Your task to perform on an android device: turn on notifications settings in the gmail app Image 0: 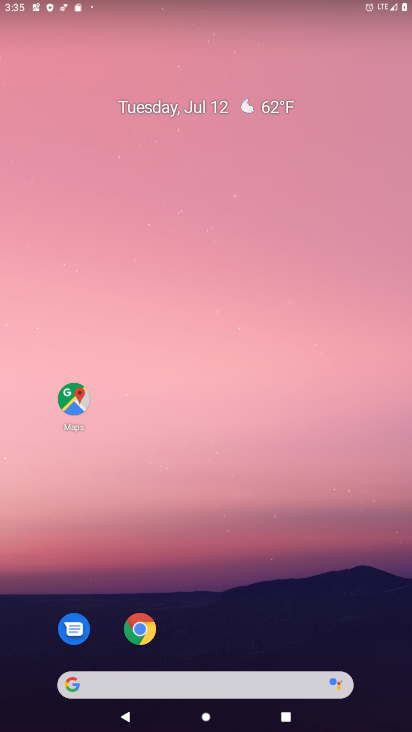
Step 0: drag from (227, 658) to (153, 28)
Your task to perform on an android device: turn on notifications settings in the gmail app Image 1: 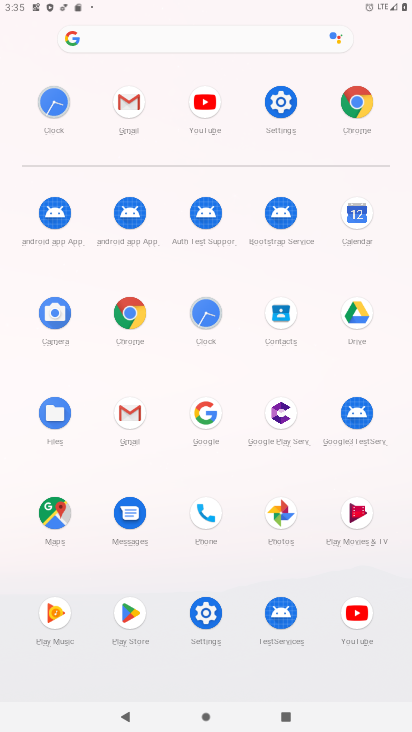
Step 1: click (141, 416)
Your task to perform on an android device: turn on notifications settings in the gmail app Image 2: 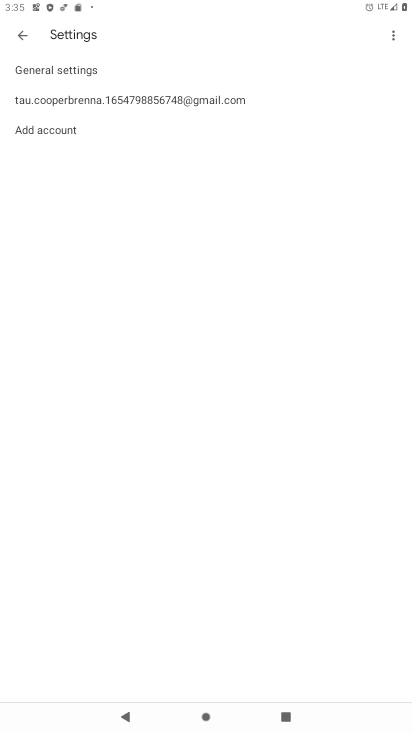
Step 2: click (34, 105)
Your task to perform on an android device: turn on notifications settings in the gmail app Image 3: 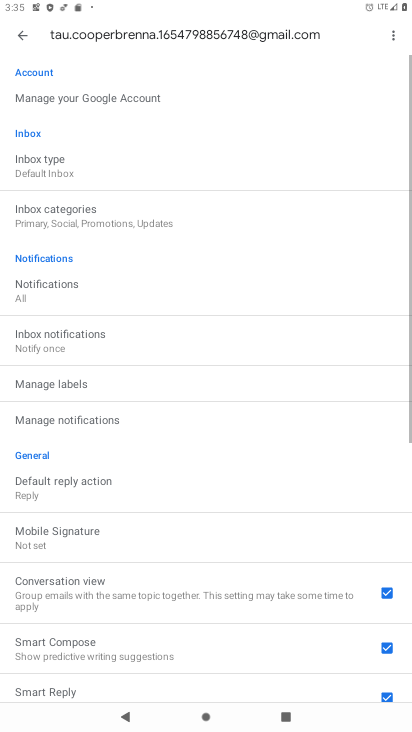
Step 3: click (18, 21)
Your task to perform on an android device: turn on notifications settings in the gmail app Image 4: 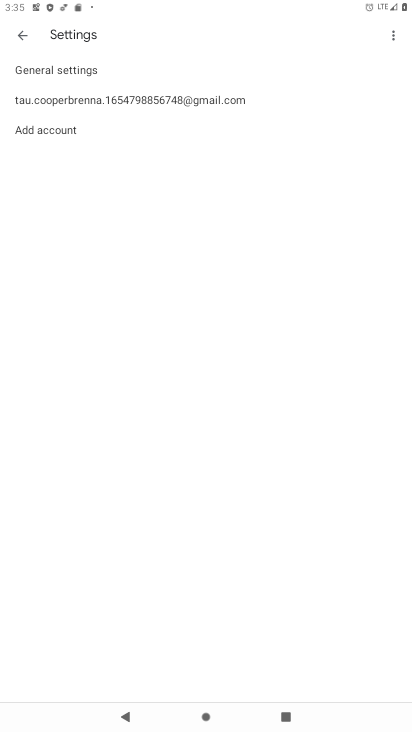
Step 4: click (81, 69)
Your task to perform on an android device: turn on notifications settings in the gmail app Image 5: 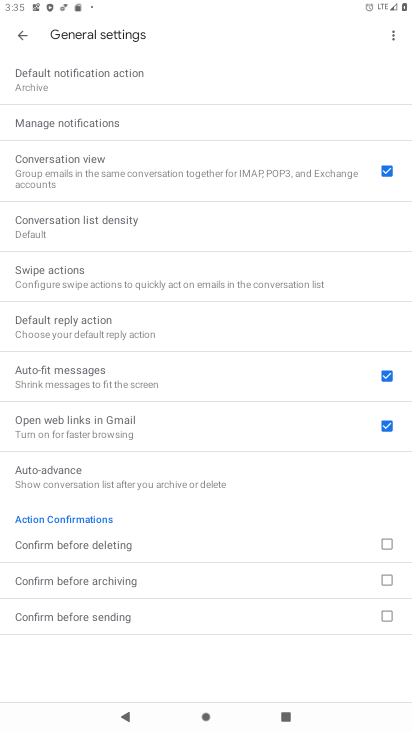
Step 5: click (77, 121)
Your task to perform on an android device: turn on notifications settings in the gmail app Image 6: 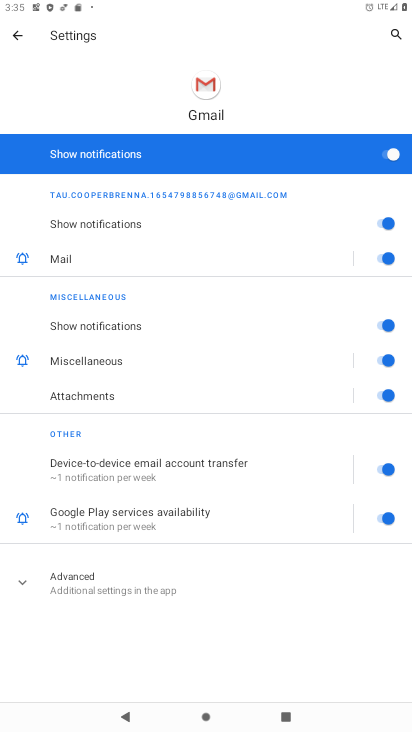
Step 6: task complete